Your task to perform on an android device: Go to Yahoo.com Image 0: 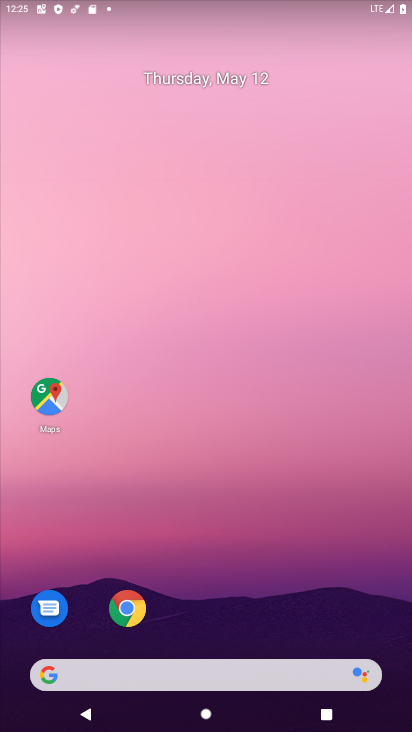
Step 0: click (141, 621)
Your task to perform on an android device: Go to Yahoo.com Image 1: 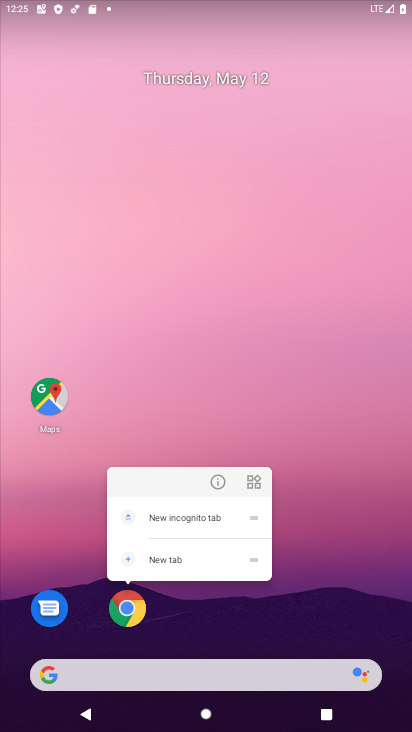
Step 1: click (125, 623)
Your task to perform on an android device: Go to Yahoo.com Image 2: 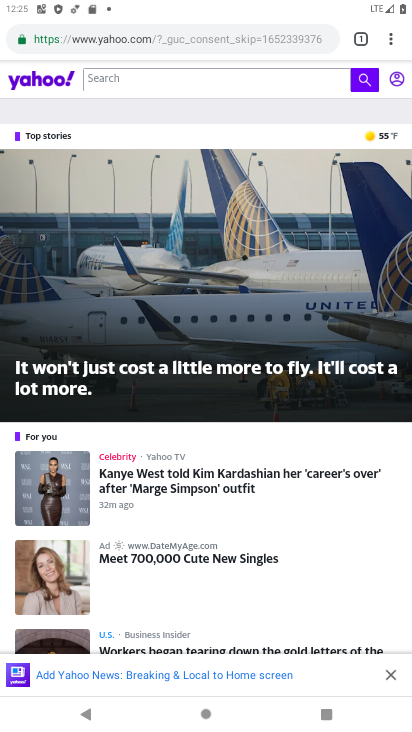
Step 2: task complete